Your task to perform on an android device: Show me productivity apps on the Play Store Image 0: 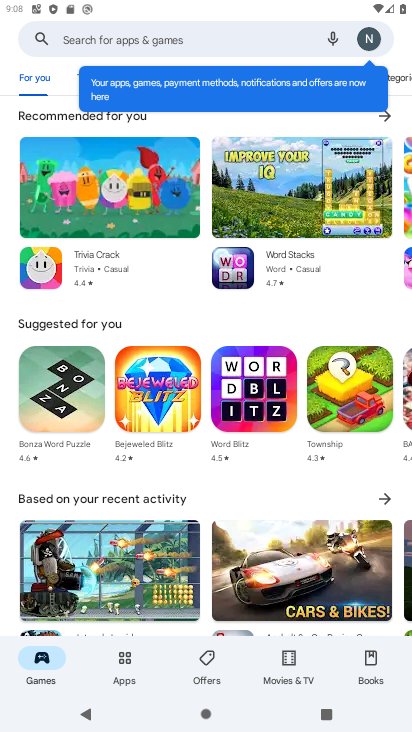
Step 0: click (126, 658)
Your task to perform on an android device: Show me productivity apps on the Play Store Image 1: 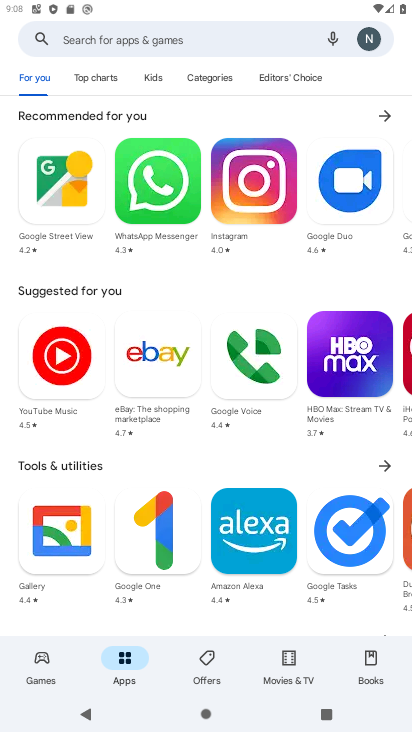
Step 1: click (211, 80)
Your task to perform on an android device: Show me productivity apps on the Play Store Image 2: 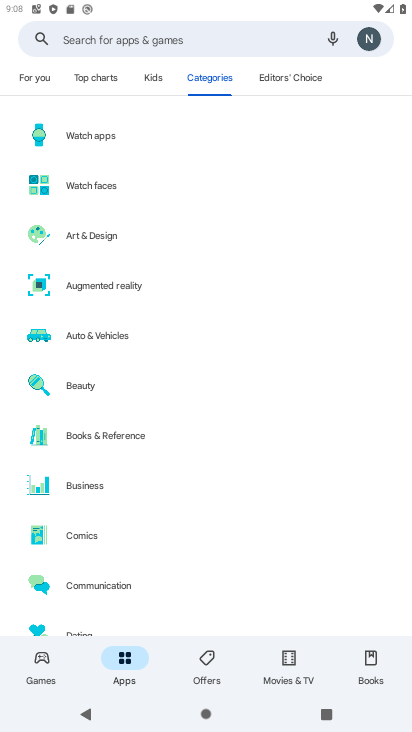
Step 2: drag from (125, 588) to (224, 95)
Your task to perform on an android device: Show me productivity apps on the Play Store Image 3: 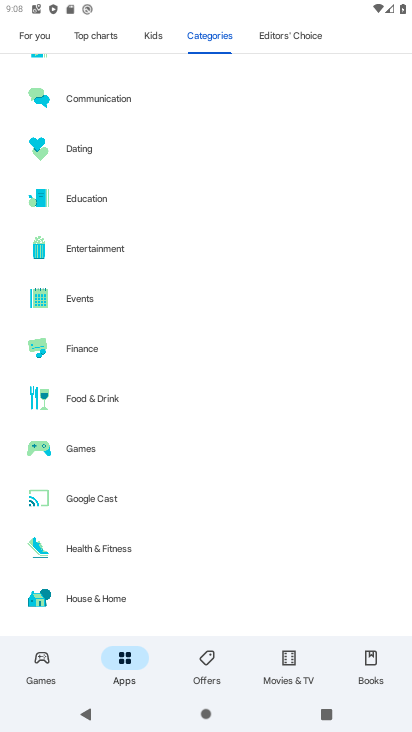
Step 3: drag from (135, 585) to (198, 49)
Your task to perform on an android device: Show me productivity apps on the Play Store Image 4: 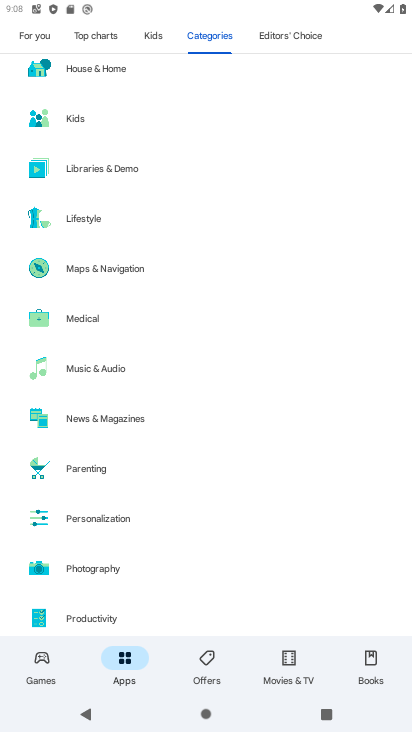
Step 4: click (132, 614)
Your task to perform on an android device: Show me productivity apps on the Play Store Image 5: 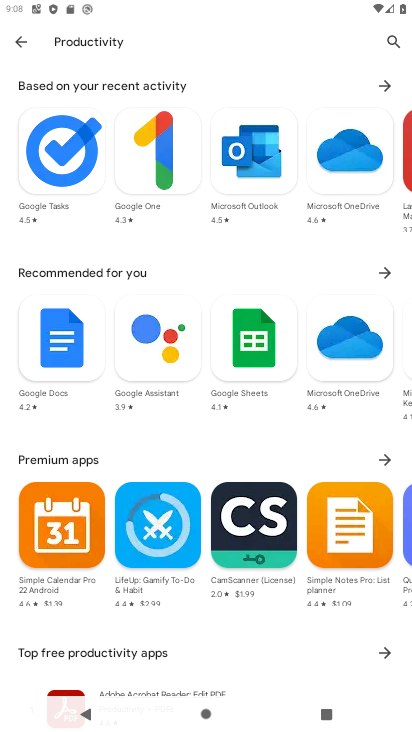
Step 5: drag from (216, 453) to (275, 74)
Your task to perform on an android device: Show me productivity apps on the Play Store Image 6: 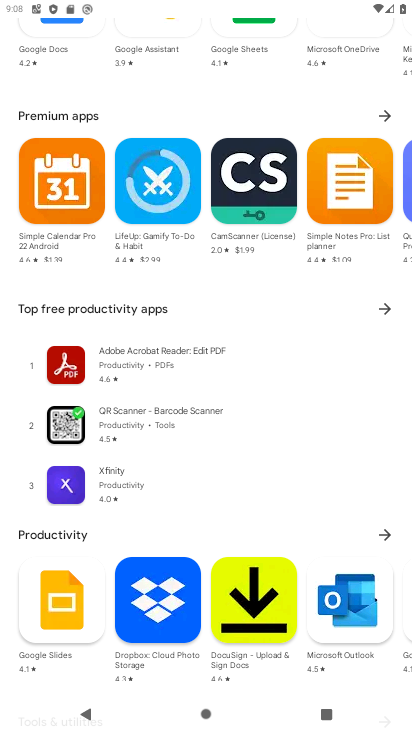
Step 6: click (386, 538)
Your task to perform on an android device: Show me productivity apps on the Play Store Image 7: 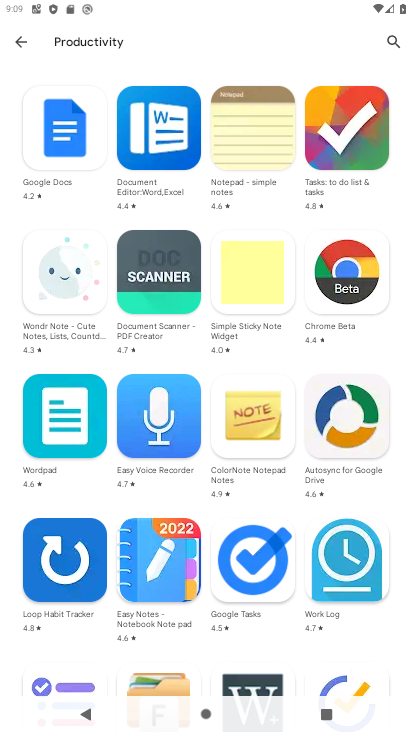
Step 7: task complete